Your task to perform on an android device: What is the news today? Image 0: 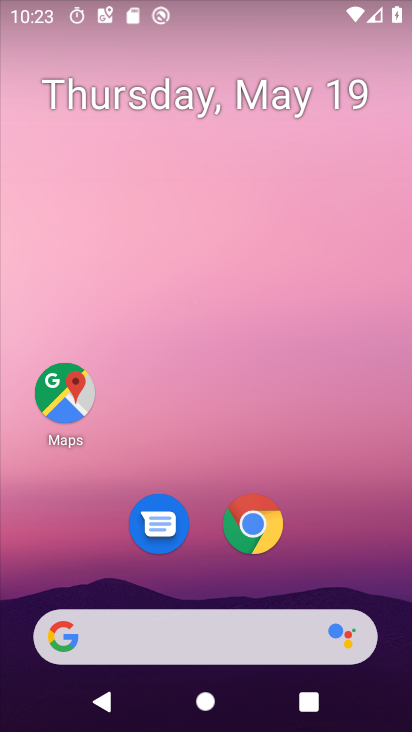
Step 0: click (171, 641)
Your task to perform on an android device: What is the news today? Image 1: 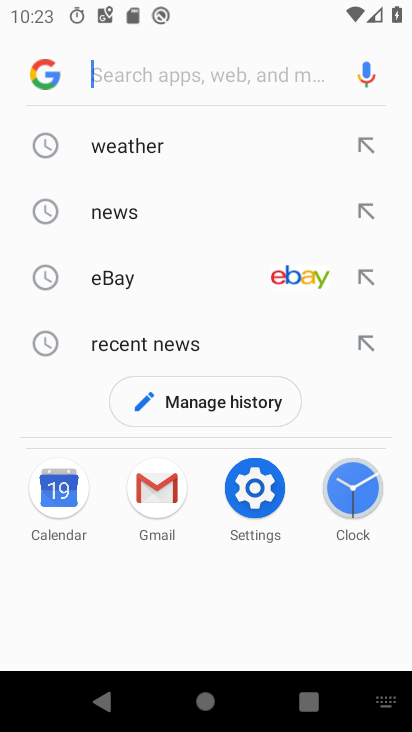
Step 1: click (119, 213)
Your task to perform on an android device: What is the news today? Image 2: 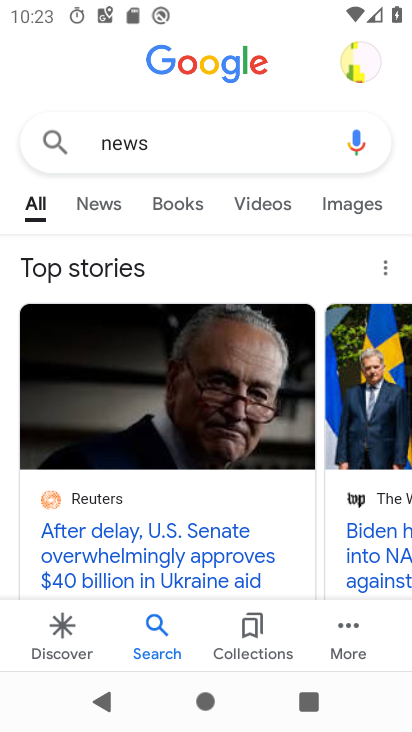
Step 2: task complete